Your task to perform on an android device: open a new tab in the chrome app Image 0: 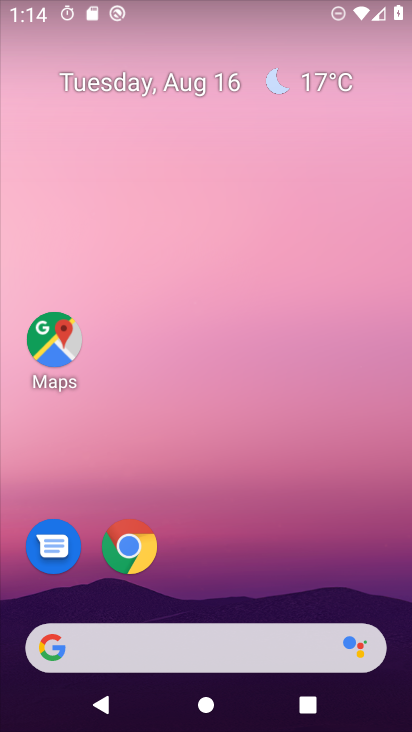
Step 0: click (131, 551)
Your task to perform on an android device: open a new tab in the chrome app Image 1: 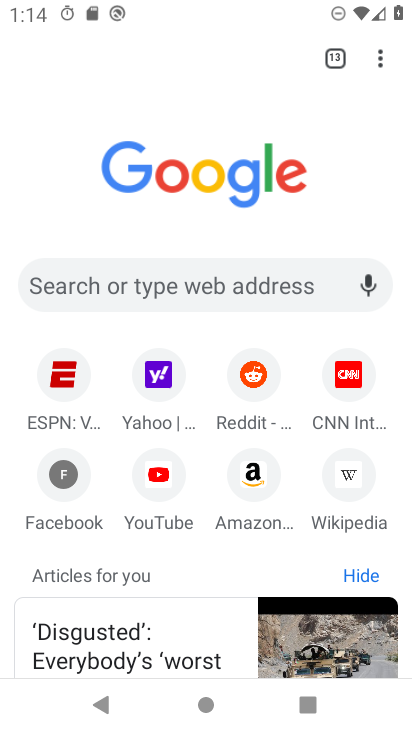
Step 1: click (381, 57)
Your task to perform on an android device: open a new tab in the chrome app Image 2: 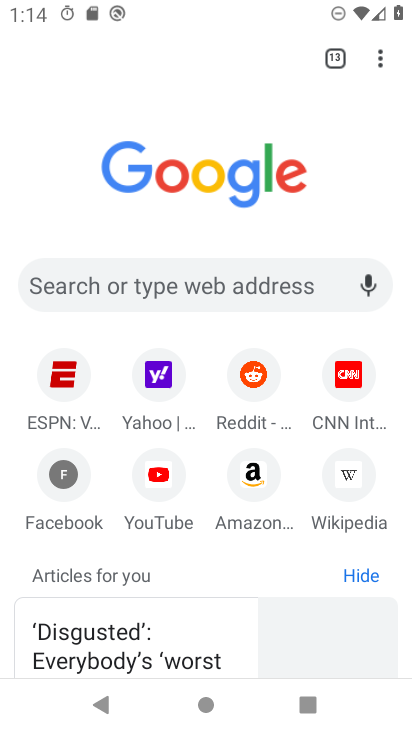
Step 2: task complete